Your task to perform on an android device: Go to Google Image 0: 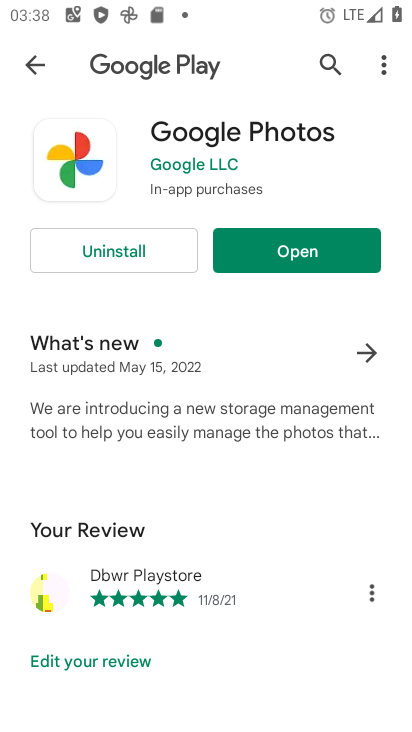
Step 0: press home button
Your task to perform on an android device: Go to Google Image 1: 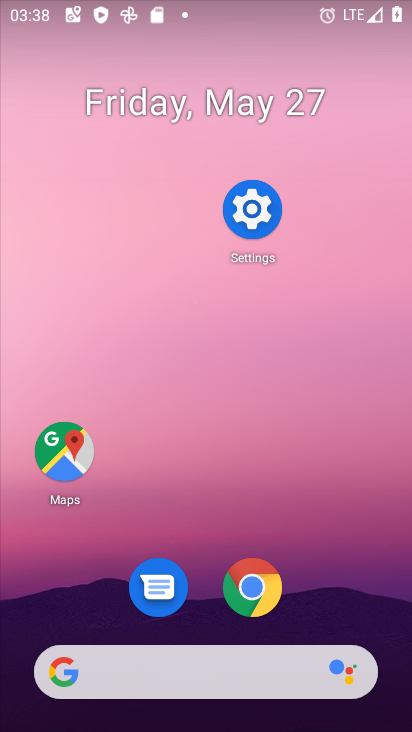
Step 1: click (411, 692)
Your task to perform on an android device: Go to Google Image 2: 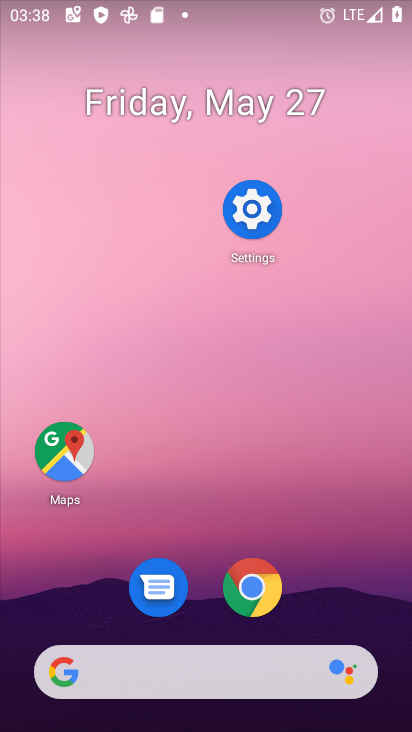
Step 2: click (54, 664)
Your task to perform on an android device: Go to Google Image 3: 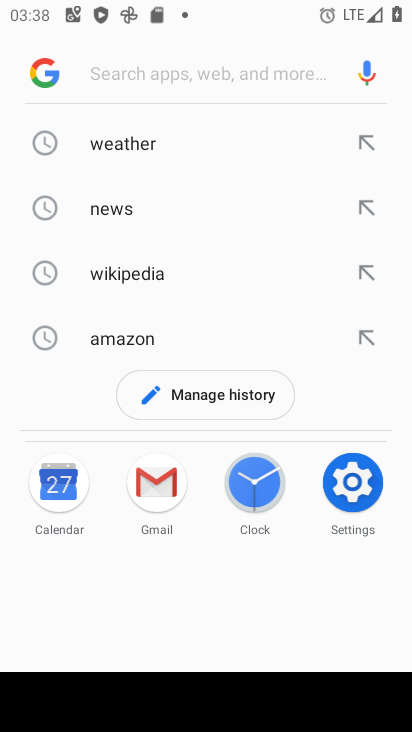
Step 3: click (378, 79)
Your task to perform on an android device: Go to Google Image 4: 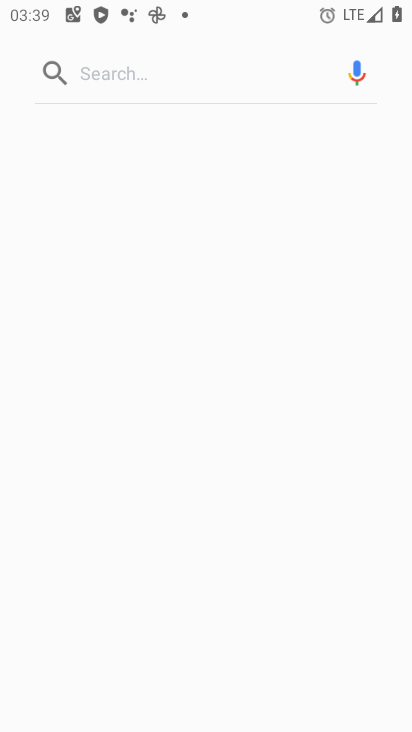
Step 4: task complete